Your task to perform on an android device: Search for Italian restaurants on Maps Image 0: 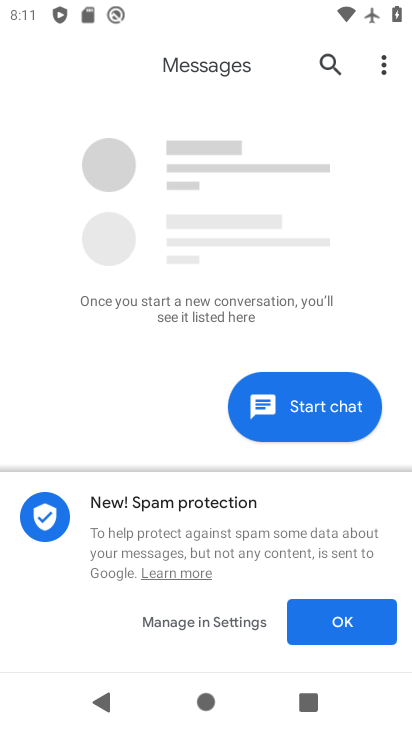
Step 0: press home button
Your task to perform on an android device: Search for Italian restaurants on Maps Image 1: 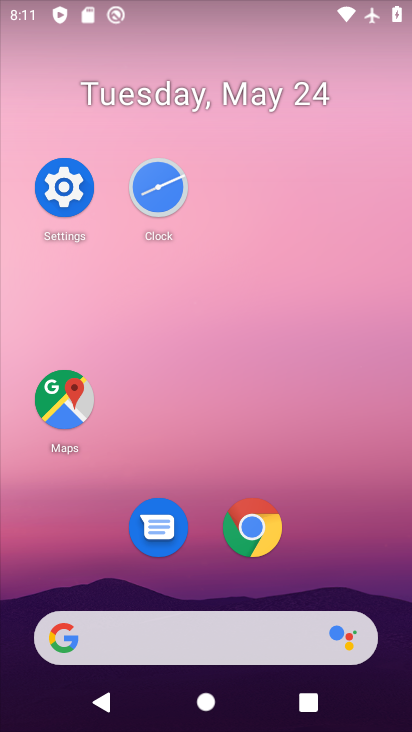
Step 1: click (74, 404)
Your task to perform on an android device: Search for Italian restaurants on Maps Image 2: 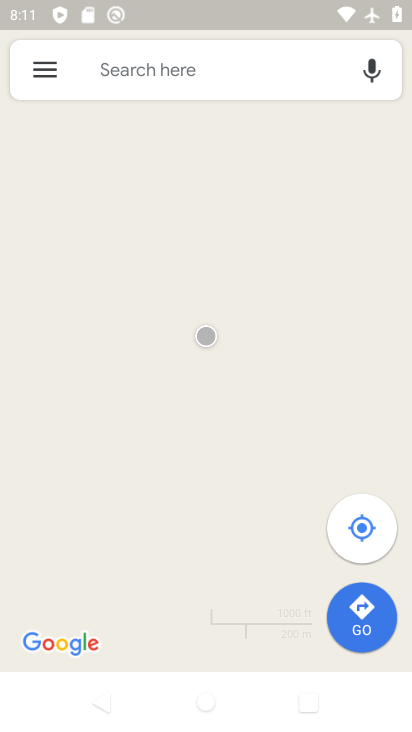
Step 2: click (229, 79)
Your task to perform on an android device: Search for Italian restaurants on Maps Image 3: 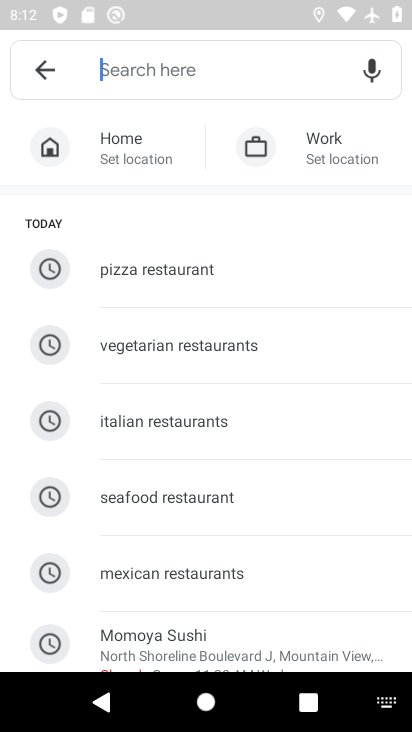
Step 3: click (173, 420)
Your task to perform on an android device: Search for Italian restaurants on Maps Image 4: 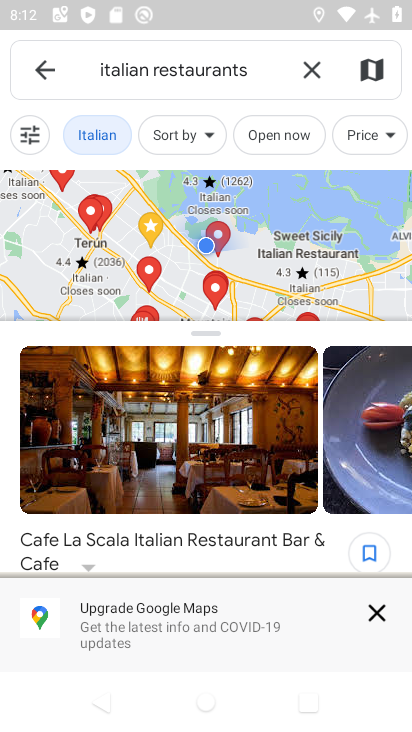
Step 4: task complete